Your task to perform on an android device: turn off notifications settings in the gmail app Image 0: 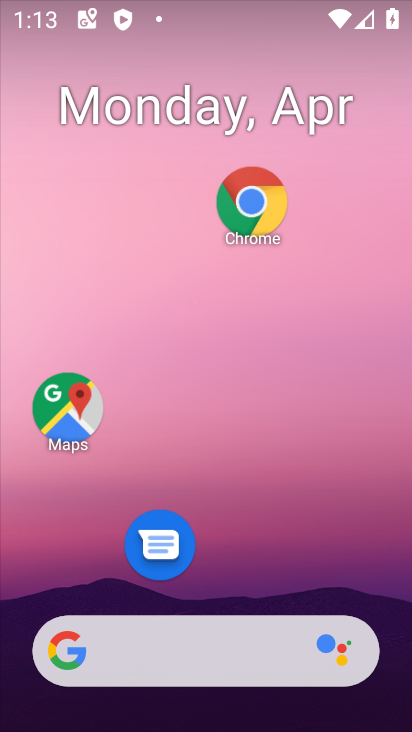
Step 0: drag from (217, 589) to (251, 35)
Your task to perform on an android device: turn off notifications settings in the gmail app Image 1: 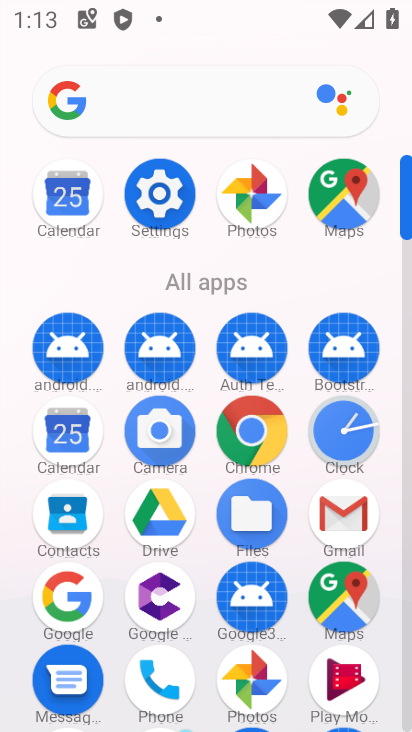
Step 1: click (356, 503)
Your task to perform on an android device: turn off notifications settings in the gmail app Image 2: 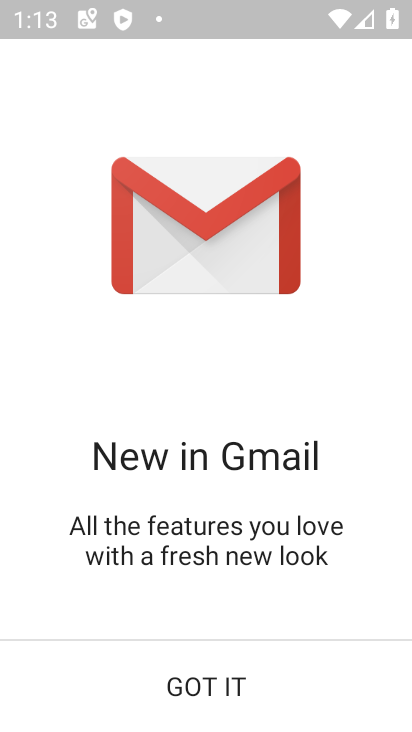
Step 2: click (201, 663)
Your task to perform on an android device: turn off notifications settings in the gmail app Image 3: 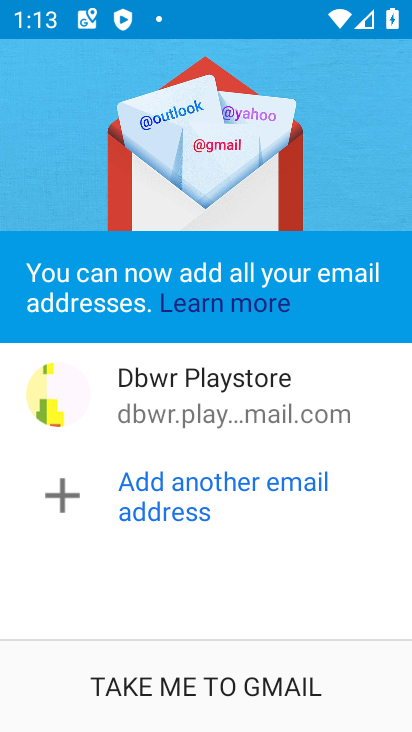
Step 3: click (165, 713)
Your task to perform on an android device: turn off notifications settings in the gmail app Image 4: 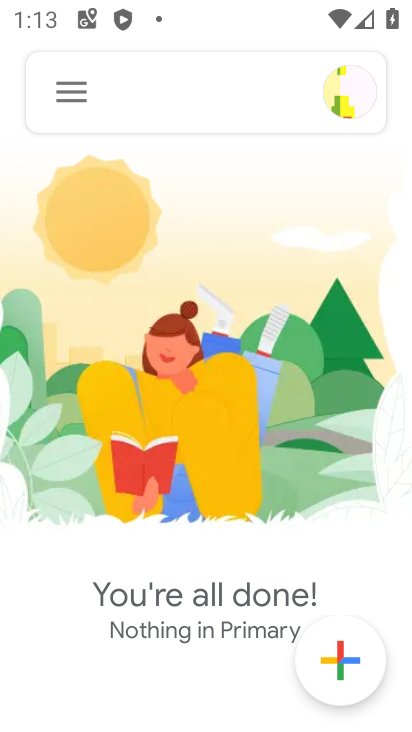
Step 4: click (69, 90)
Your task to perform on an android device: turn off notifications settings in the gmail app Image 5: 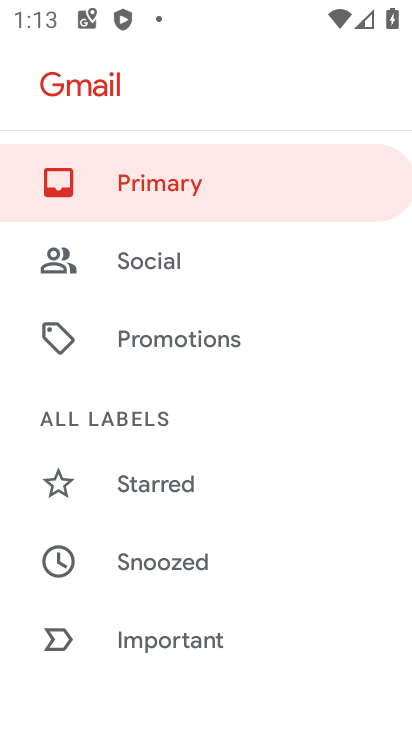
Step 5: drag from (113, 632) to (185, 120)
Your task to perform on an android device: turn off notifications settings in the gmail app Image 6: 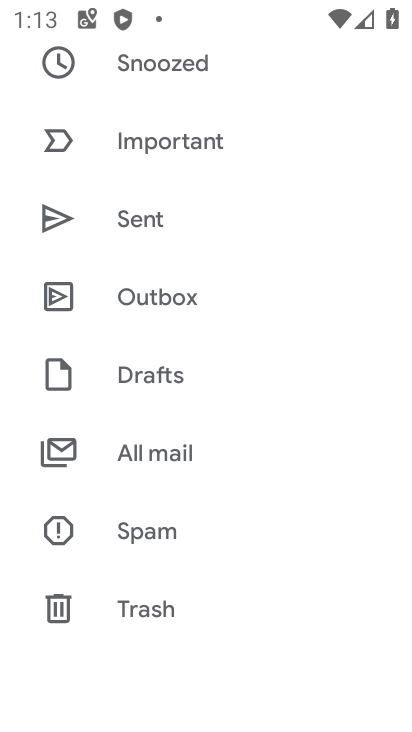
Step 6: drag from (102, 550) to (133, 112)
Your task to perform on an android device: turn off notifications settings in the gmail app Image 7: 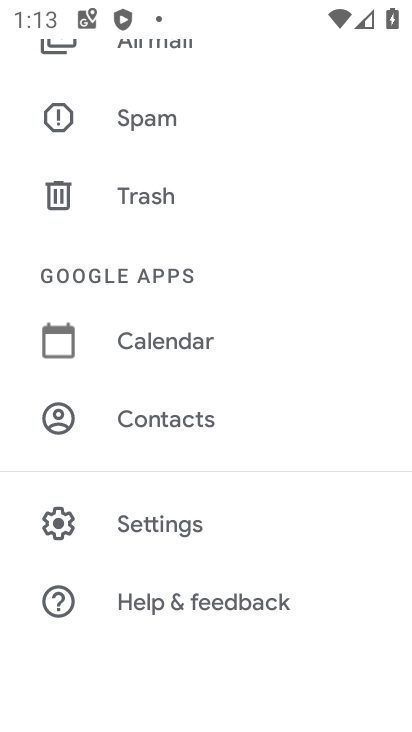
Step 7: drag from (231, 236) to (217, 697)
Your task to perform on an android device: turn off notifications settings in the gmail app Image 8: 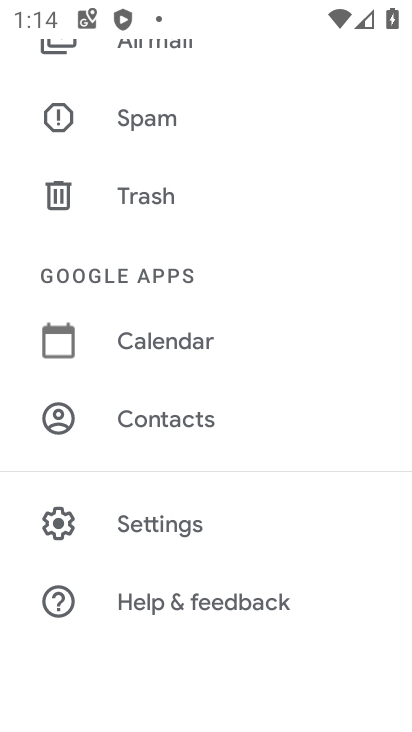
Step 8: click (142, 528)
Your task to perform on an android device: turn off notifications settings in the gmail app Image 9: 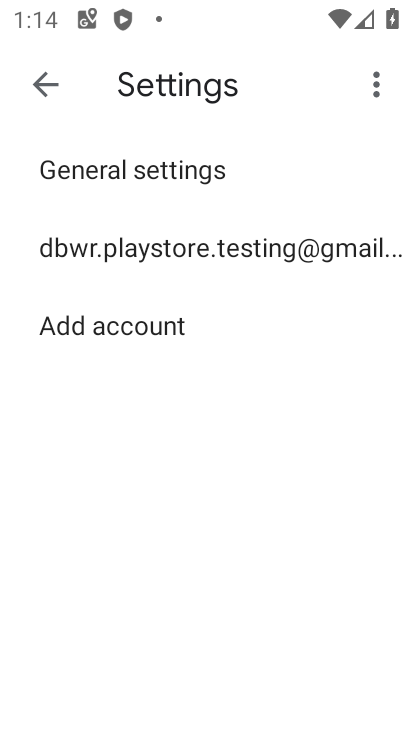
Step 9: click (259, 223)
Your task to perform on an android device: turn off notifications settings in the gmail app Image 10: 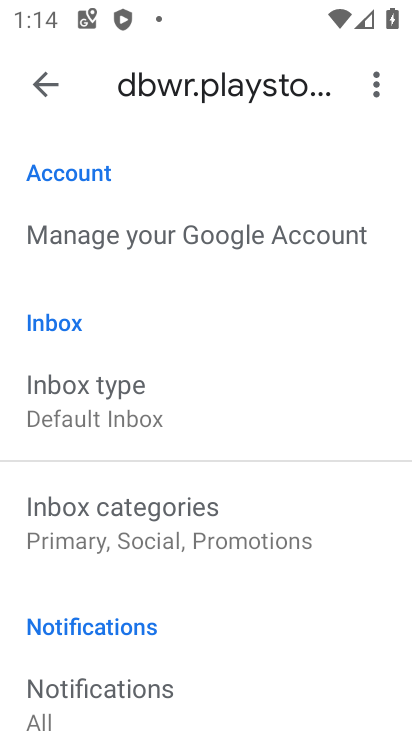
Step 10: click (108, 695)
Your task to perform on an android device: turn off notifications settings in the gmail app Image 11: 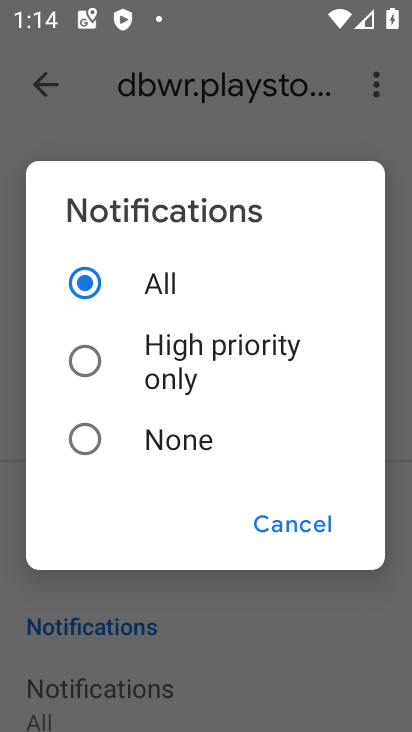
Step 11: click (180, 438)
Your task to perform on an android device: turn off notifications settings in the gmail app Image 12: 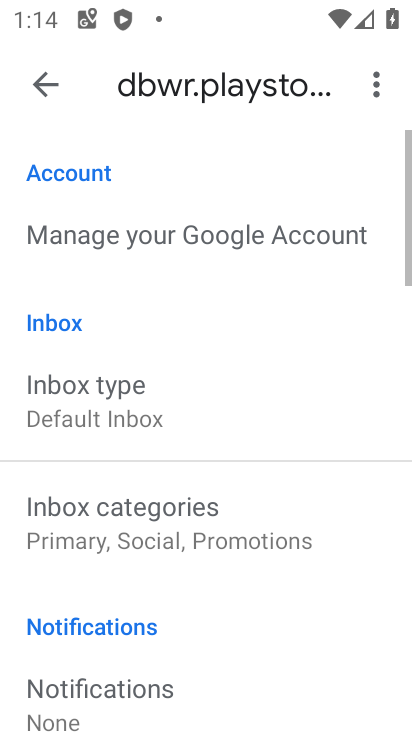
Step 12: task complete